Your task to perform on an android device: When is my next appointment? Image 0: 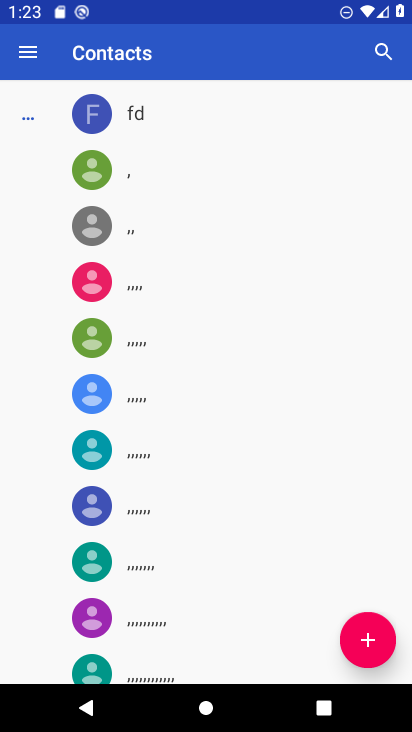
Step 0: press home button
Your task to perform on an android device: When is my next appointment? Image 1: 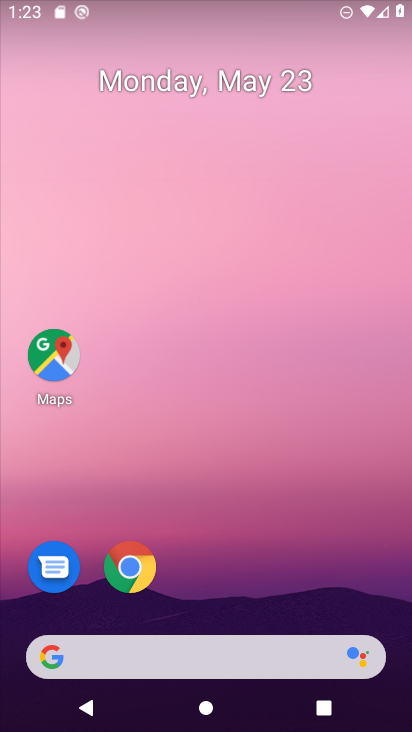
Step 1: drag from (291, 568) to (293, 150)
Your task to perform on an android device: When is my next appointment? Image 2: 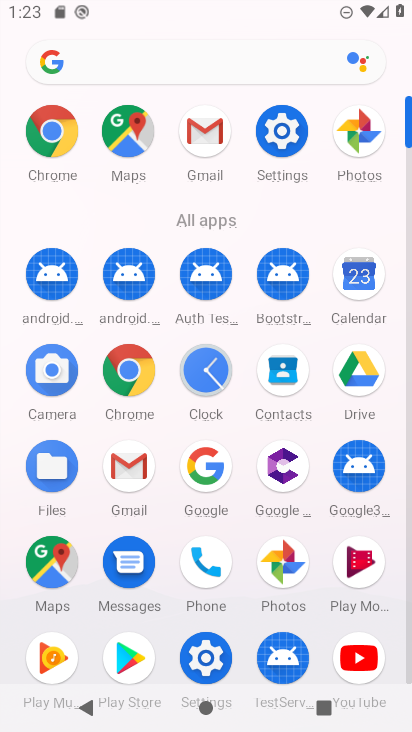
Step 2: click (344, 286)
Your task to perform on an android device: When is my next appointment? Image 3: 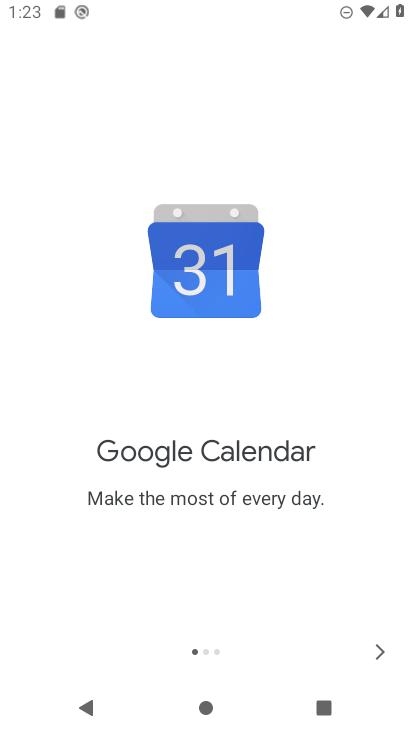
Step 3: click (367, 648)
Your task to perform on an android device: When is my next appointment? Image 4: 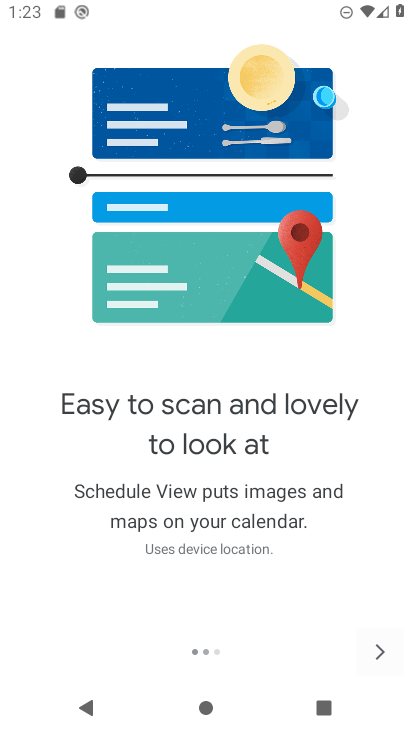
Step 4: click (367, 648)
Your task to perform on an android device: When is my next appointment? Image 5: 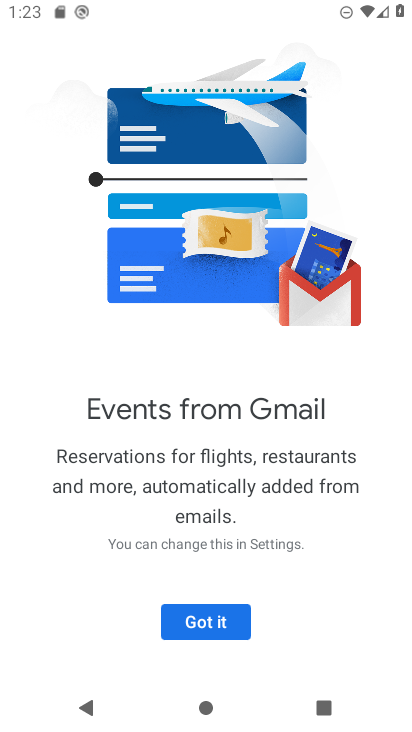
Step 5: click (367, 648)
Your task to perform on an android device: When is my next appointment? Image 6: 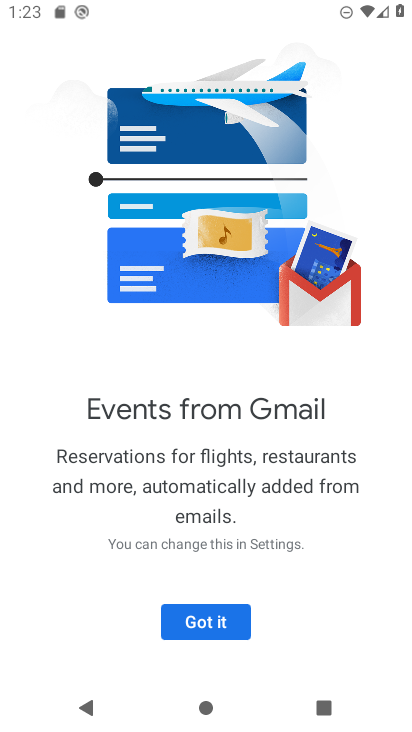
Step 6: click (226, 626)
Your task to perform on an android device: When is my next appointment? Image 7: 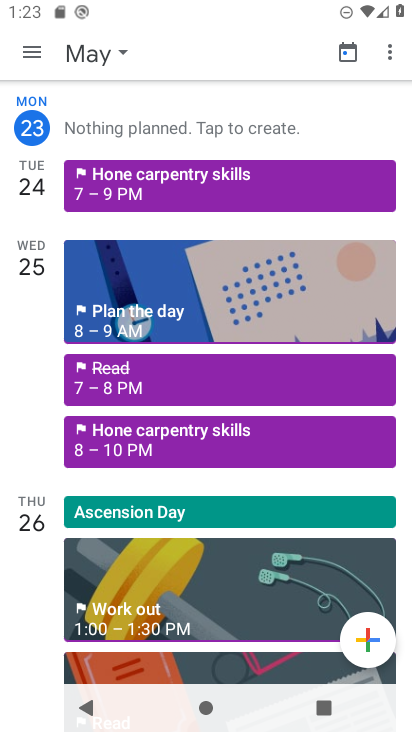
Step 7: click (114, 47)
Your task to perform on an android device: When is my next appointment? Image 8: 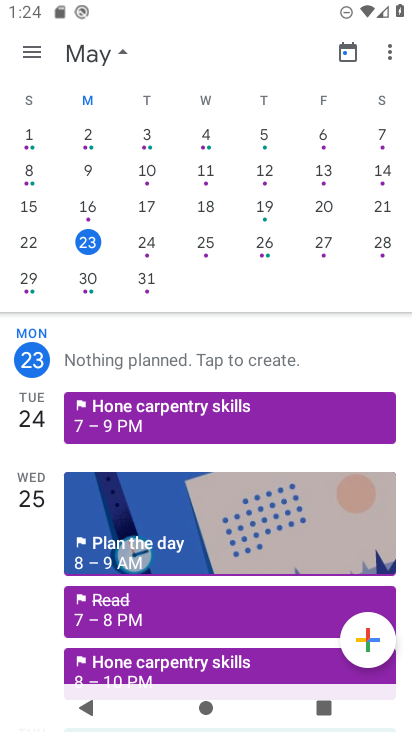
Step 8: click (129, 61)
Your task to perform on an android device: When is my next appointment? Image 9: 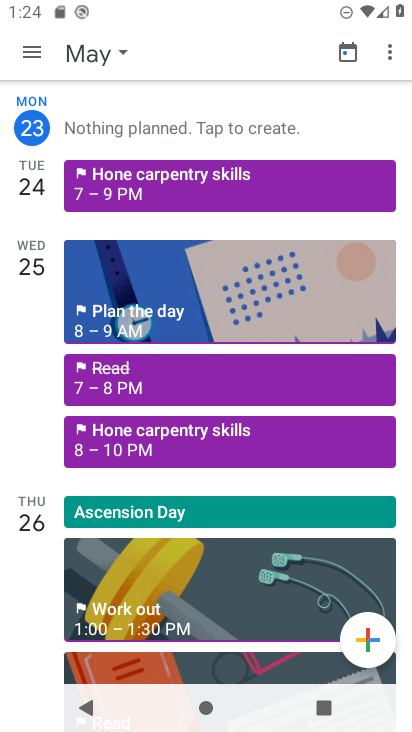
Step 9: task complete